Your task to perform on an android device: See recent photos Image 0: 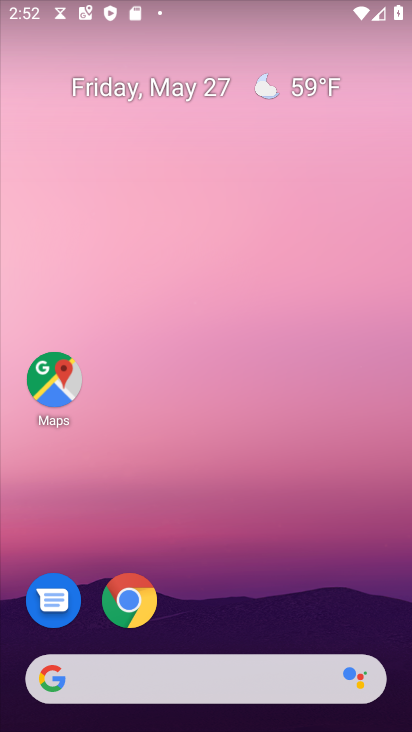
Step 0: drag from (258, 596) to (187, 117)
Your task to perform on an android device: See recent photos Image 1: 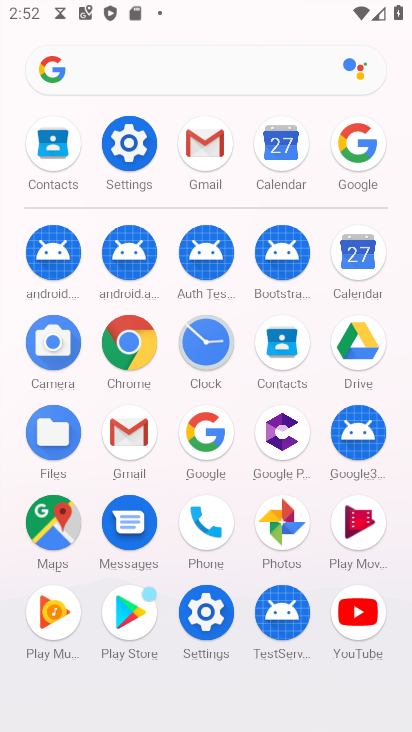
Step 1: click (282, 521)
Your task to perform on an android device: See recent photos Image 2: 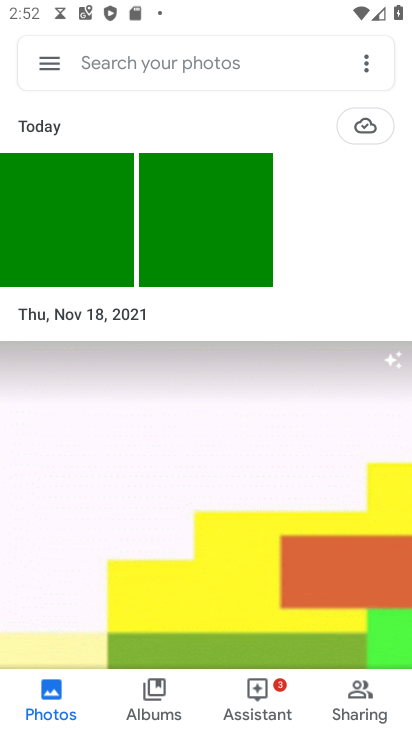
Step 2: click (77, 233)
Your task to perform on an android device: See recent photos Image 3: 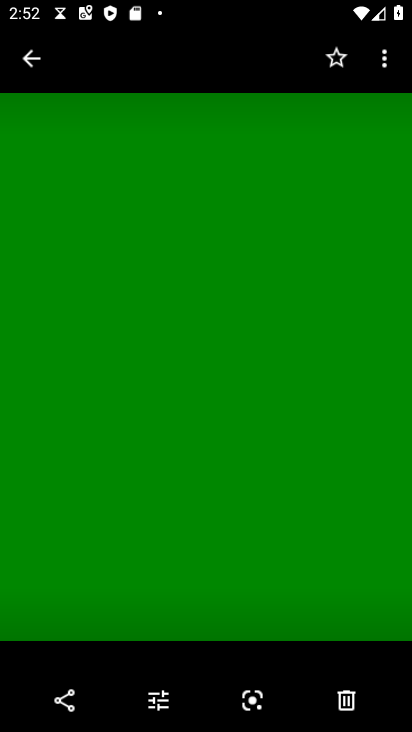
Step 3: task complete